Your task to perform on an android device: Who is the president of France? Image 0: 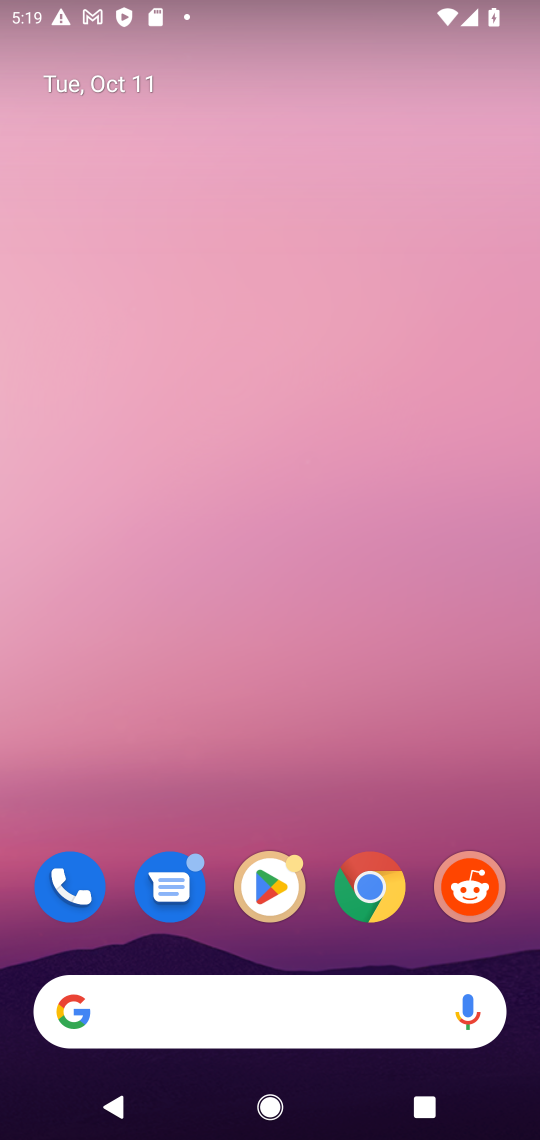
Step 0: click (218, 996)
Your task to perform on an android device: Who is the president of France? Image 1: 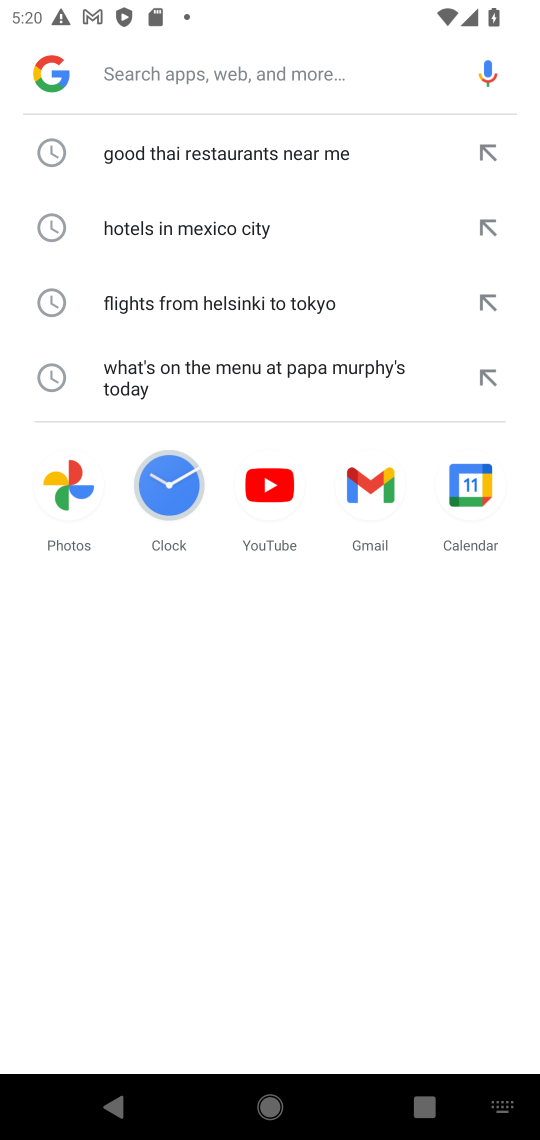
Step 1: type "the president of France"
Your task to perform on an android device: Who is the president of France? Image 2: 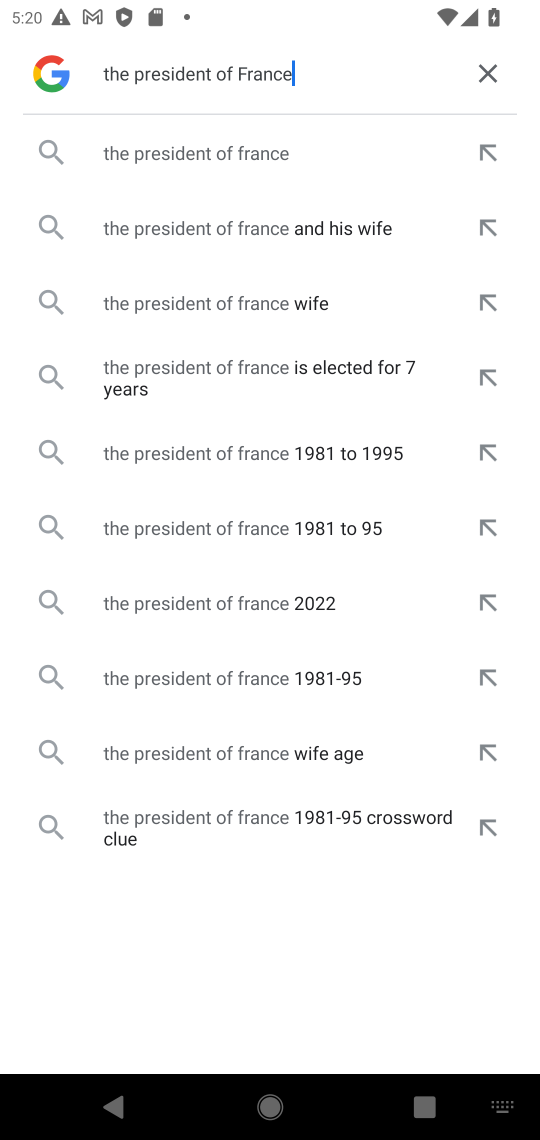
Step 2: click (230, 159)
Your task to perform on an android device: Who is the president of France? Image 3: 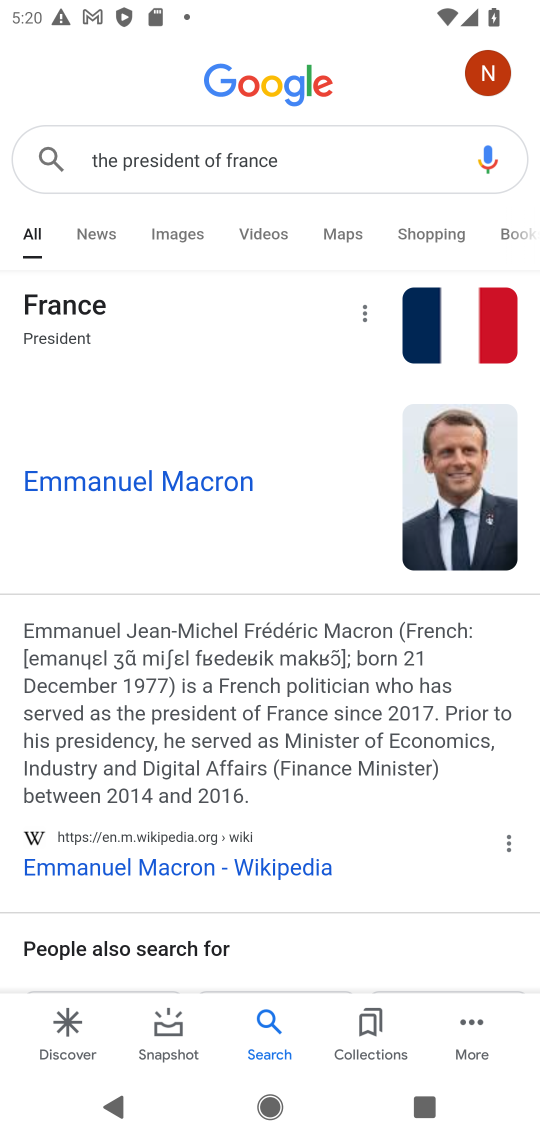
Step 3: task complete